Your task to perform on an android device: refresh tabs in the chrome app Image 0: 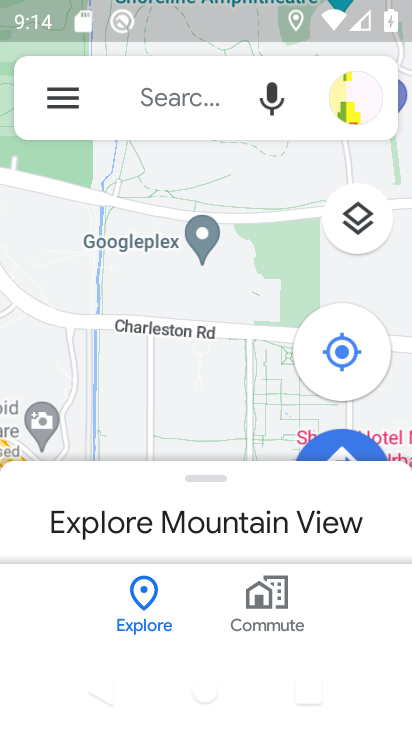
Step 0: press home button
Your task to perform on an android device: refresh tabs in the chrome app Image 1: 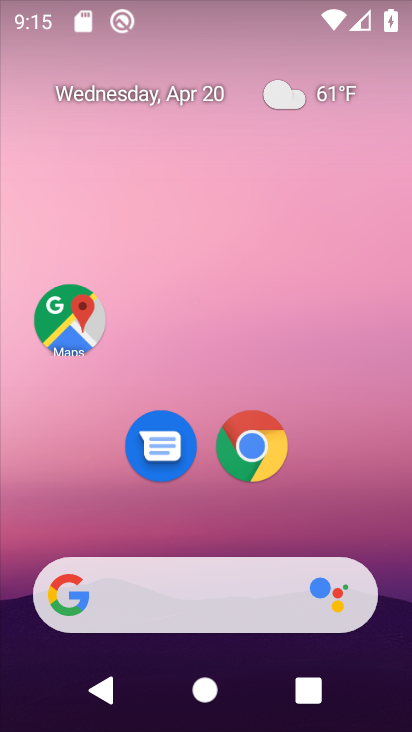
Step 1: drag from (369, 476) to (361, 98)
Your task to perform on an android device: refresh tabs in the chrome app Image 2: 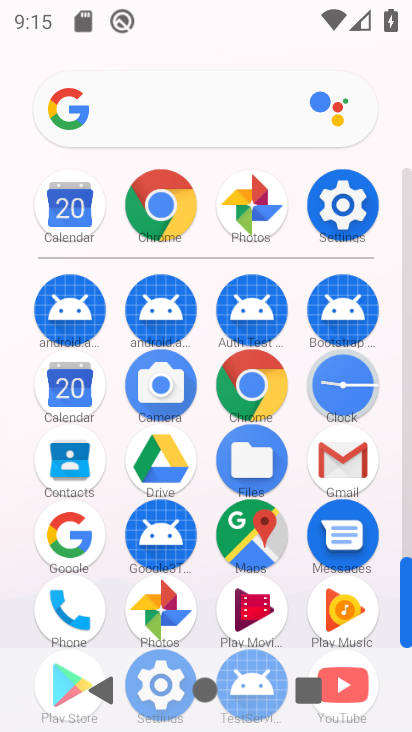
Step 2: click (259, 380)
Your task to perform on an android device: refresh tabs in the chrome app Image 3: 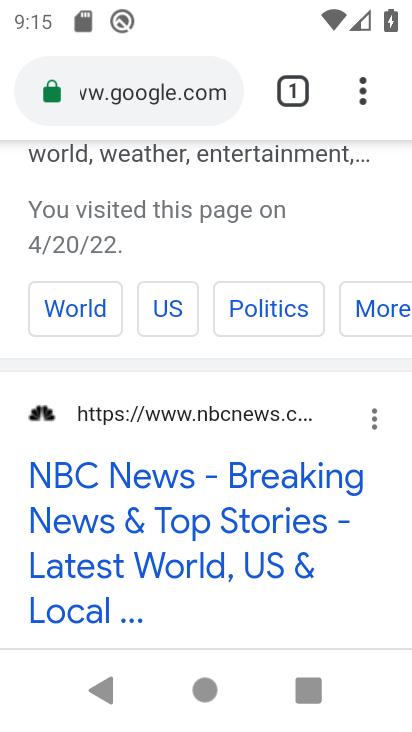
Step 3: task complete